Your task to perform on an android device: toggle data saver in the chrome app Image 0: 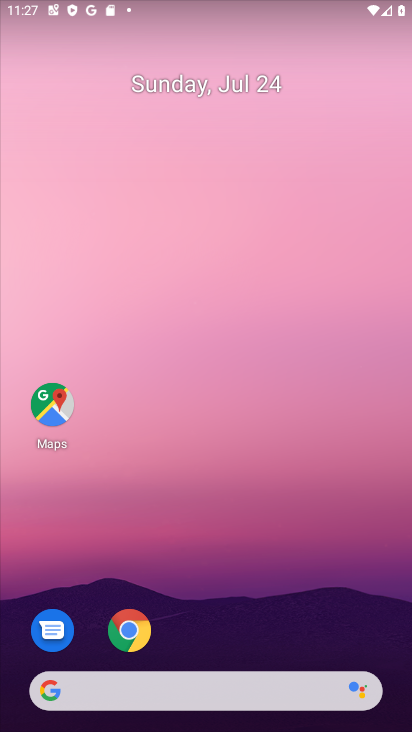
Step 0: drag from (305, 541) to (269, 137)
Your task to perform on an android device: toggle data saver in the chrome app Image 1: 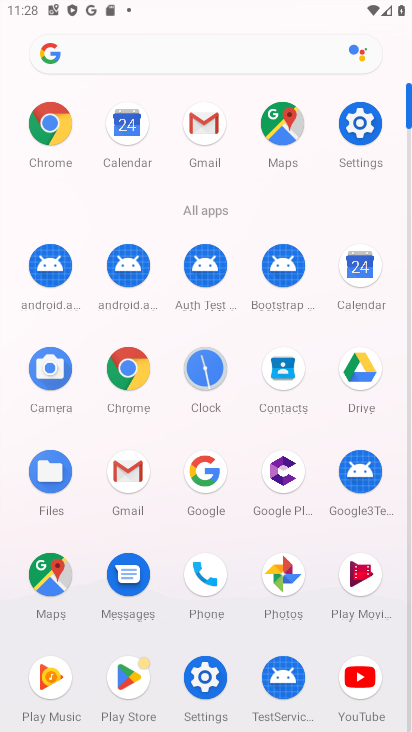
Step 1: click (82, 120)
Your task to perform on an android device: toggle data saver in the chrome app Image 2: 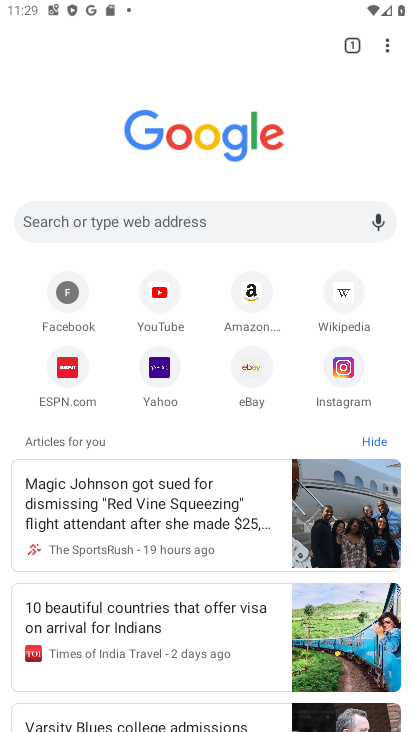
Step 2: drag from (387, 50) to (201, 435)
Your task to perform on an android device: toggle data saver in the chrome app Image 3: 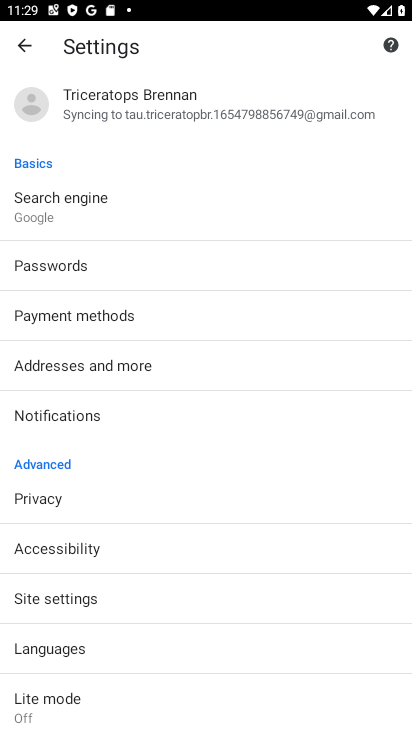
Step 3: click (36, 710)
Your task to perform on an android device: toggle data saver in the chrome app Image 4: 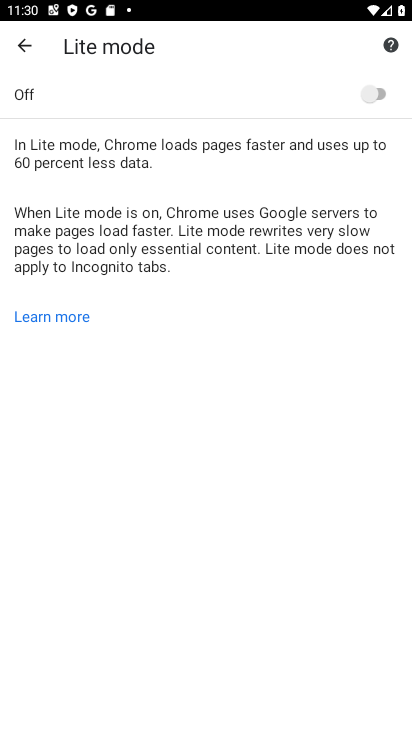
Step 4: click (275, 92)
Your task to perform on an android device: toggle data saver in the chrome app Image 5: 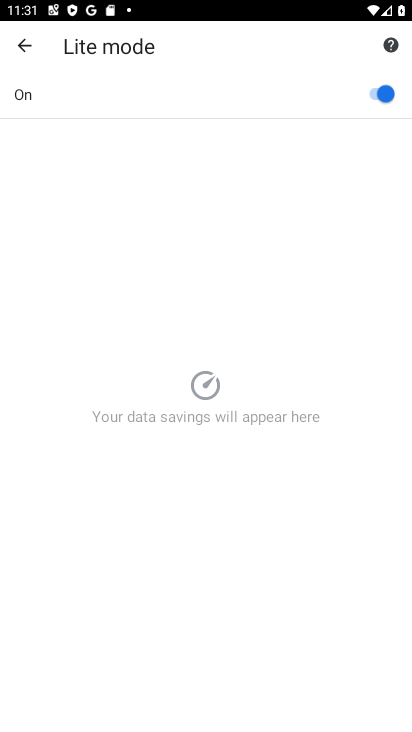
Step 5: task complete